Your task to perform on an android device: What's on my calendar today? Image 0: 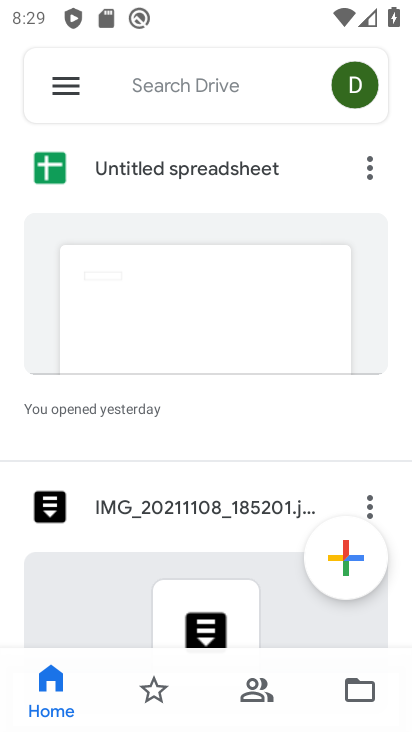
Step 0: press home button
Your task to perform on an android device: What's on my calendar today? Image 1: 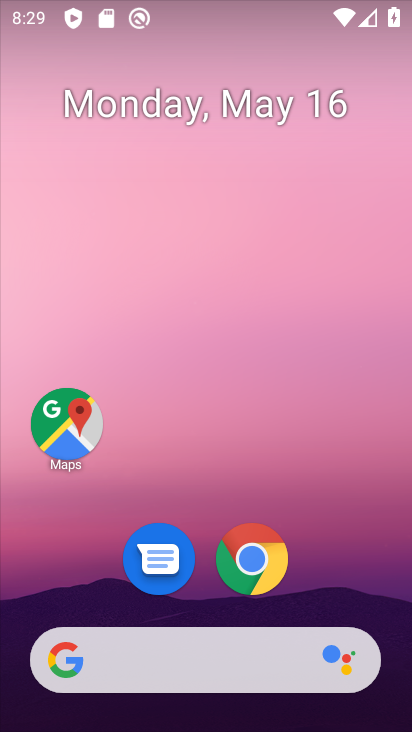
Step 1: drag from (335, 561) to (337, 24)
Your task to perform on an android device: What's on my calendar today? Image 2: 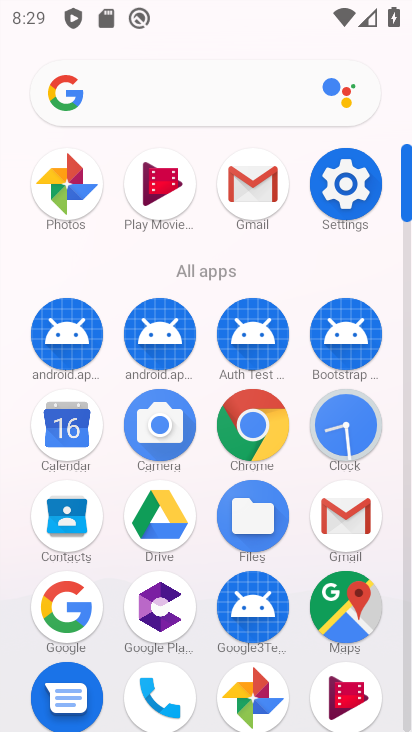
Step 2: click (70, 411)
Your task to perform on an android device: What's on my calendar today? Image 3: 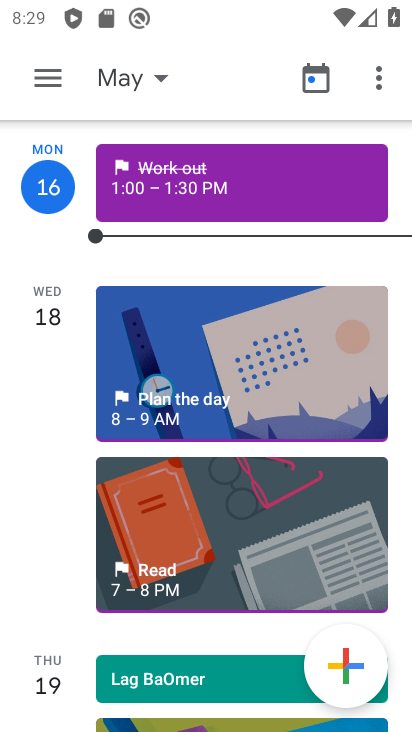
Step 3: click (154, 85)
Your task to perform on an android device: What's on my calendar today? Image 4: 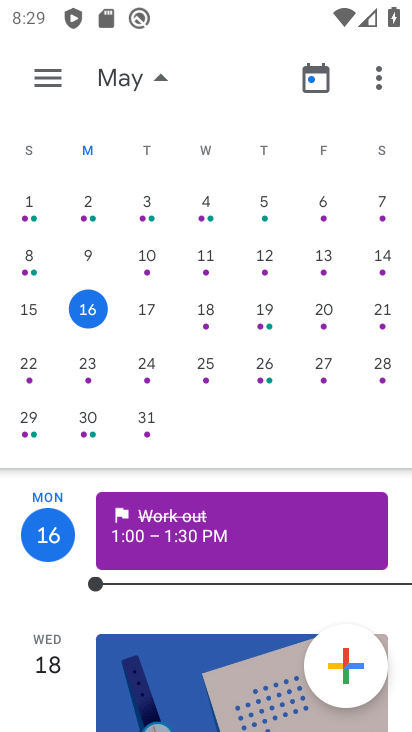
Step 4: click (81, 314)
Your task to perform on an android device: What's on my calendar today? Image 5: 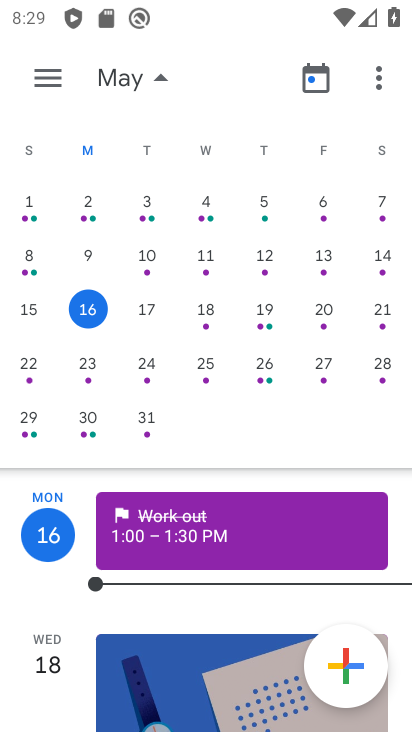
Step 5: click (84, 314)
Your task to perform on an android device: What's on my calendar today? Image 6: 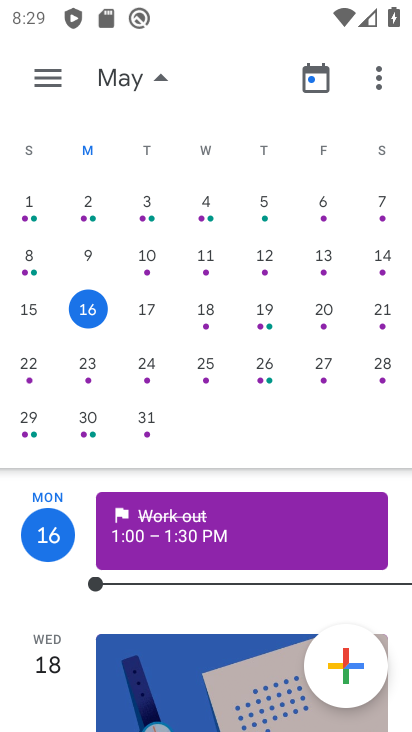
Step 6: click (87, 314)
Your task to perform on an android device: What's on my calendar today? Image 7: 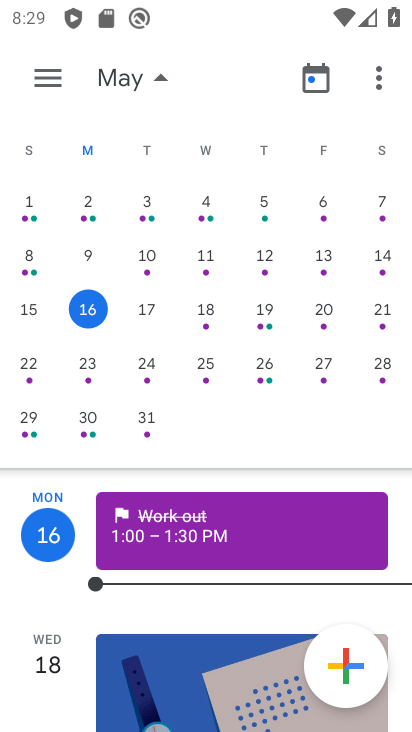
Step 7: task complete